Your task to perform on an android device: Go to display settings Image 0: 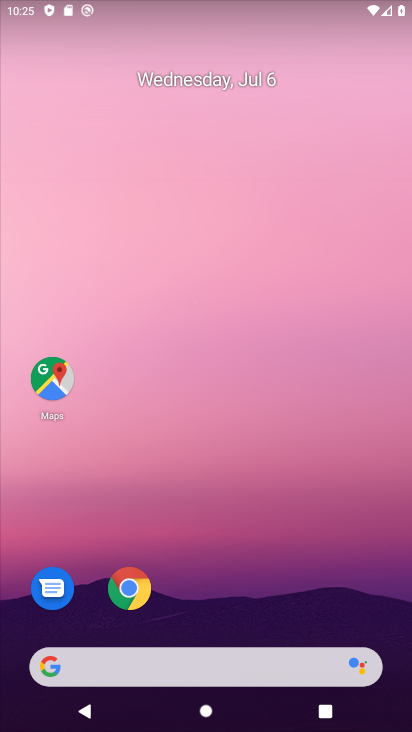
Step 0: drag from (304, 599) to (290, 52)
Your task to perform on an android device: Go to display settings Image 1: 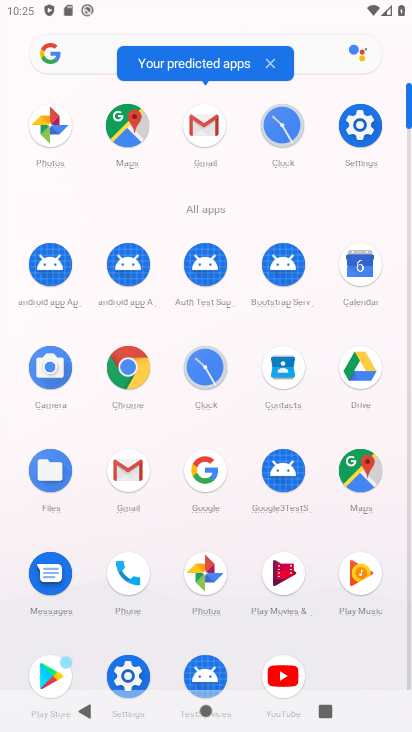
Step 1: click (358, 138)
Your task to perform on an android device: Go to display settings Image 2: 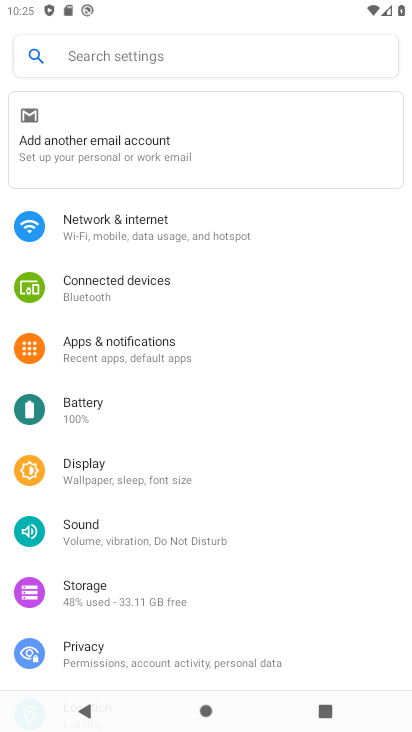
Step 2: click (147, 463)
Your task to perform on an android device: Go to display settings Image 3: 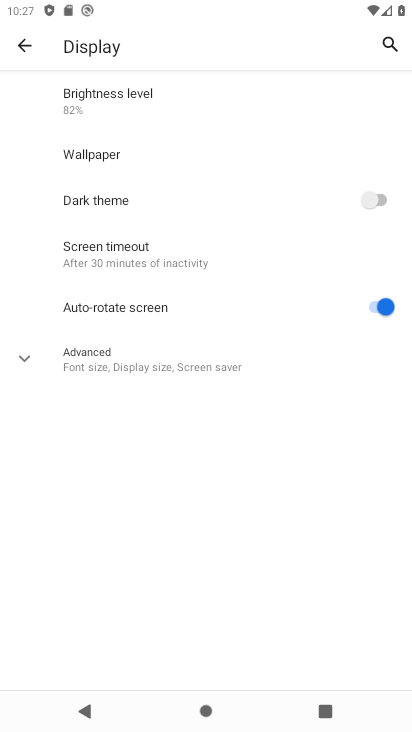
Step 3: task complete